Your task to perform on an android device: Open battery settings Image 0: 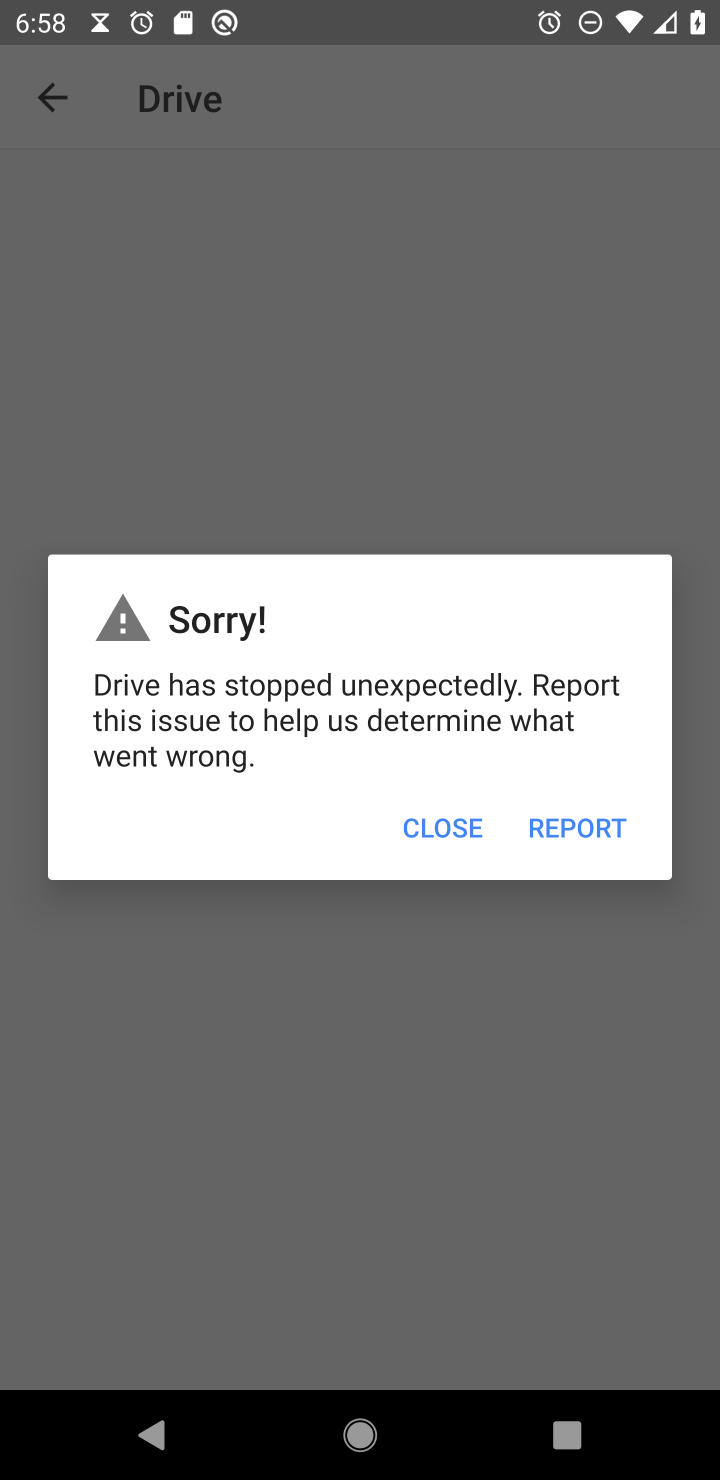
Step 0: press home button
Your task to perform on an android device: Open battery settings Image 1: 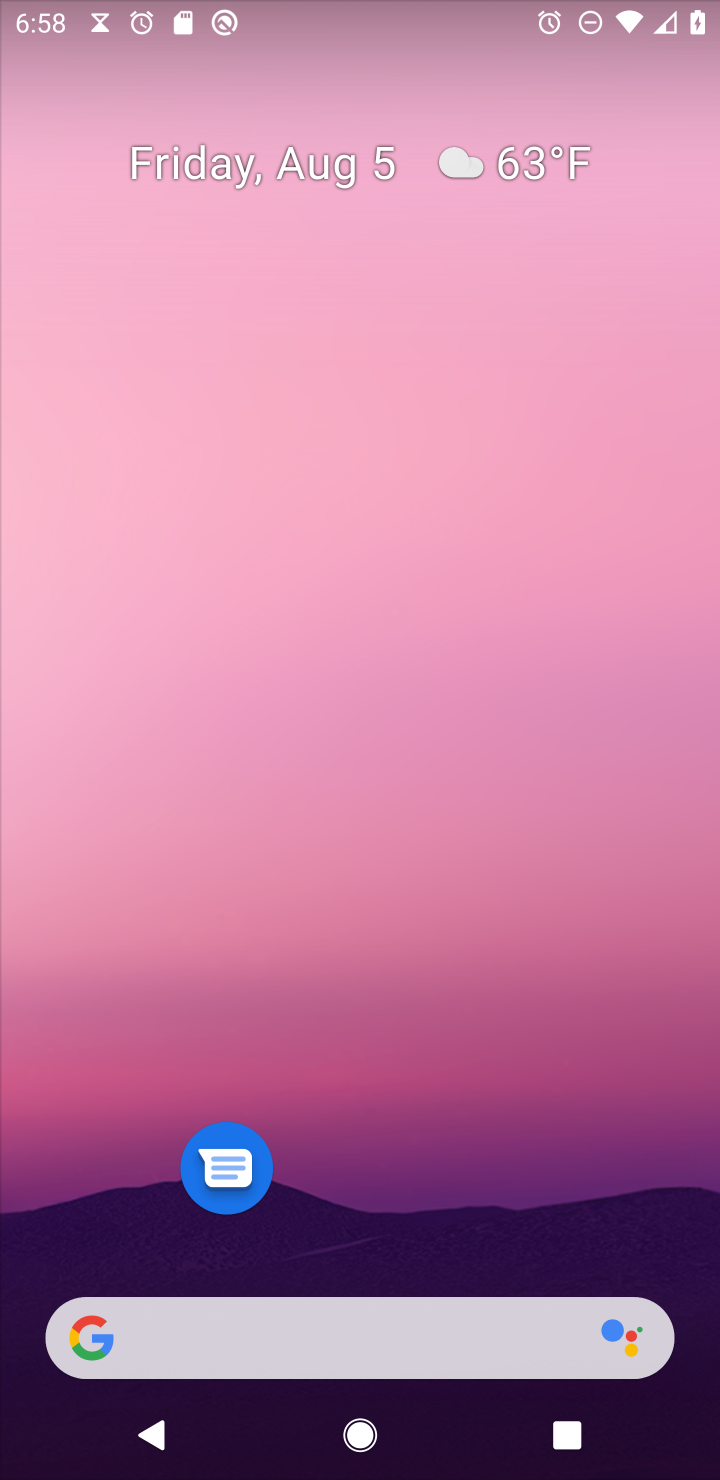
Step 1: drag from (399, 1251) to (610, 238)
Your task to perform on an android device: Open battery settings Image 2: 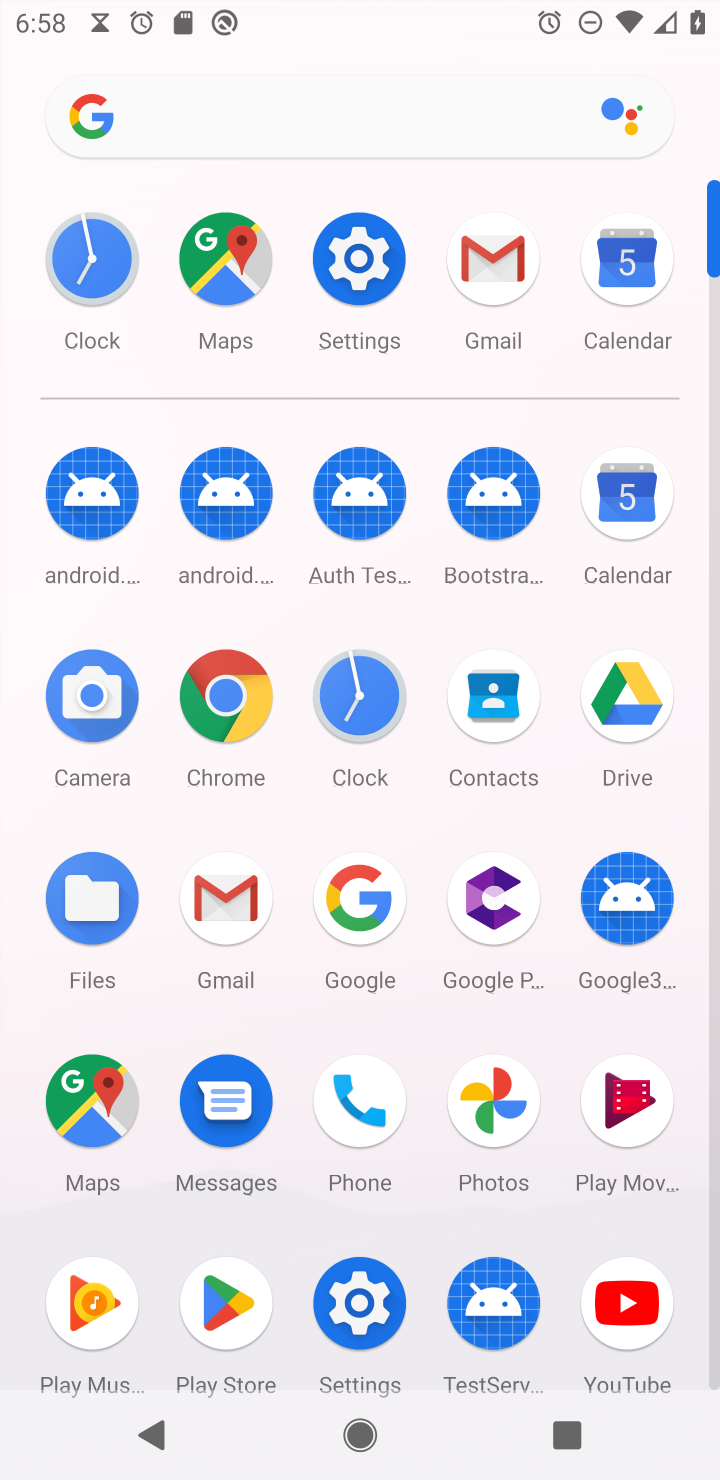
Step 2: click (366, 299)
Your task to perform on an android device: Open battery settings Image 3: 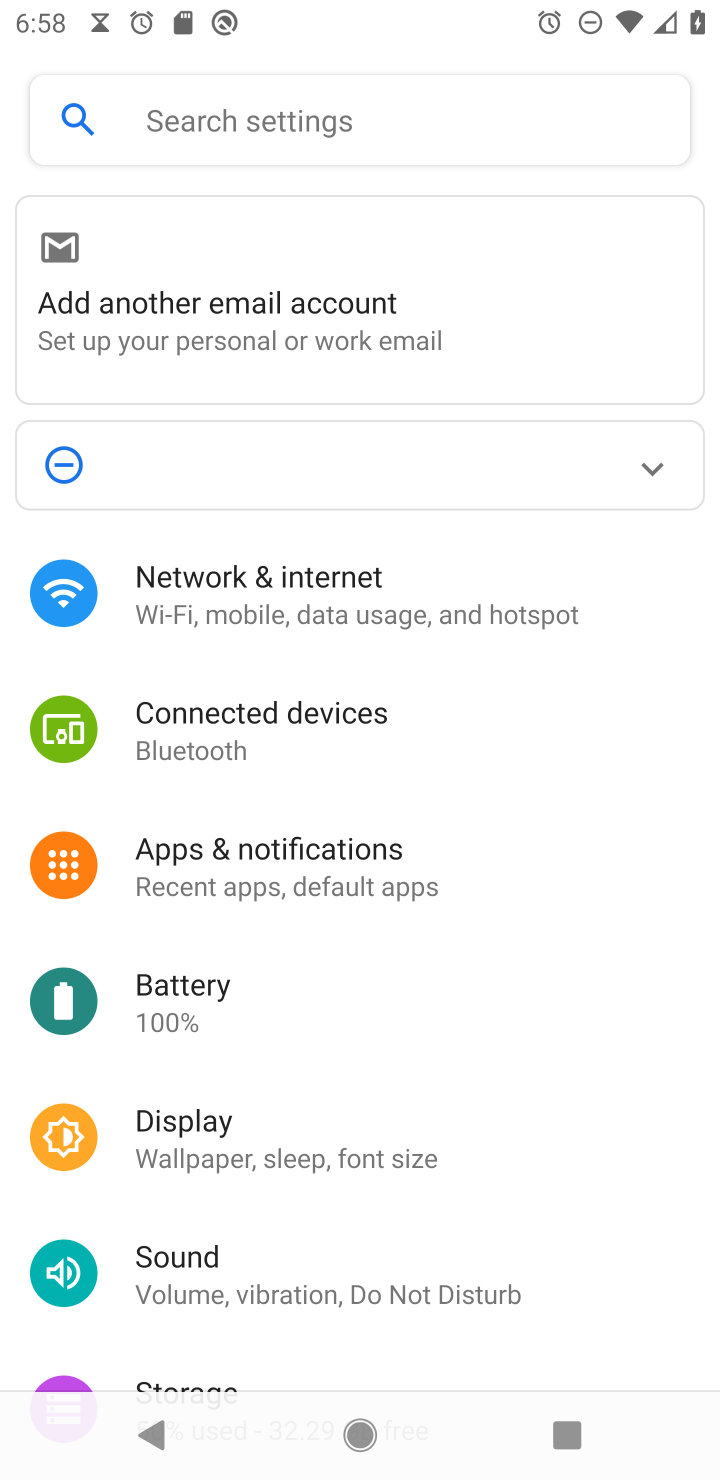
Step 3: click (172, 1008)
Your task to perform on an android device: Open battery settings Image 4: 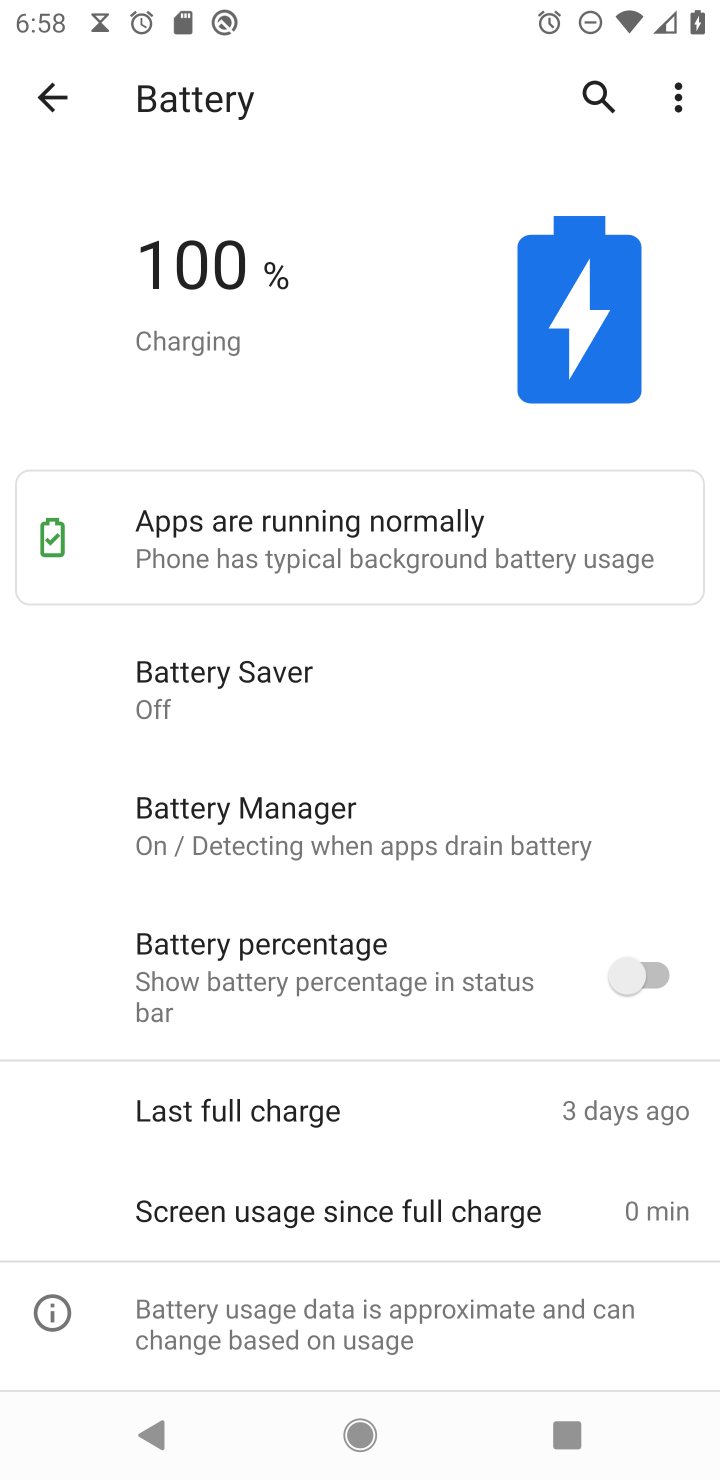
Step 4: task complete